Your task to perform on an android device: read, delete, or share a saved page in the chrome app Image 0: 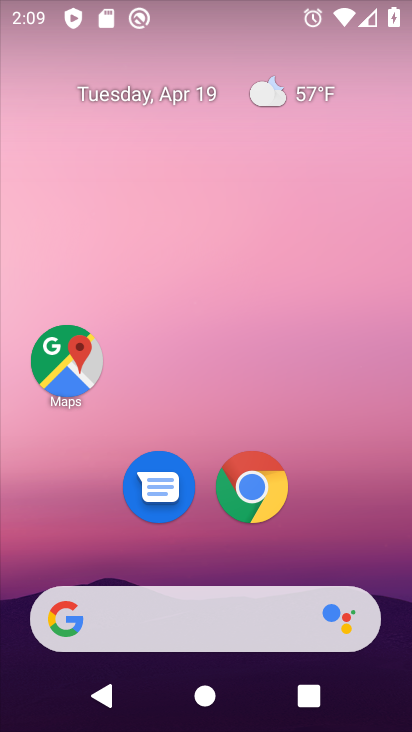
Step 0: drag from (347, 454) to (328, 97)
Your task to perform on an android device: read, delete, or share a saved page in the chrome app Image 1: 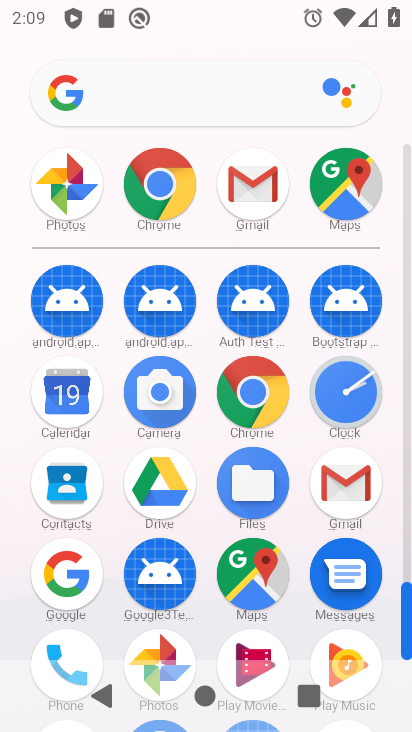
Step 1: click (241, 399)
Your task to perform on an android device: read, delete, or share a saved page in the chrome app Image 2: 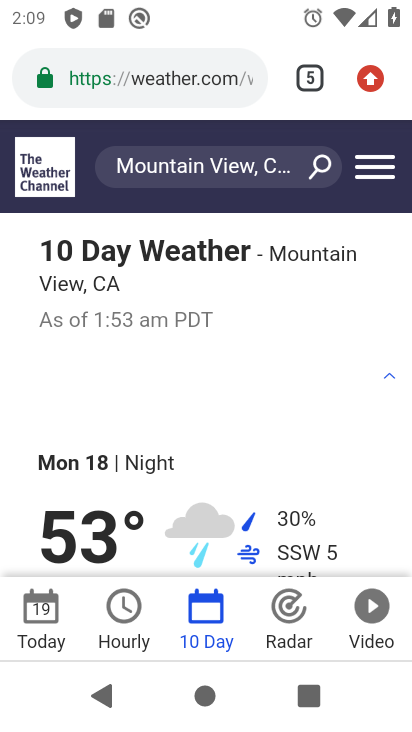
Step 2: click (373, 79)
Your task to perform on an android device: read, delete, or share a saved page in the chrome app Image 3: 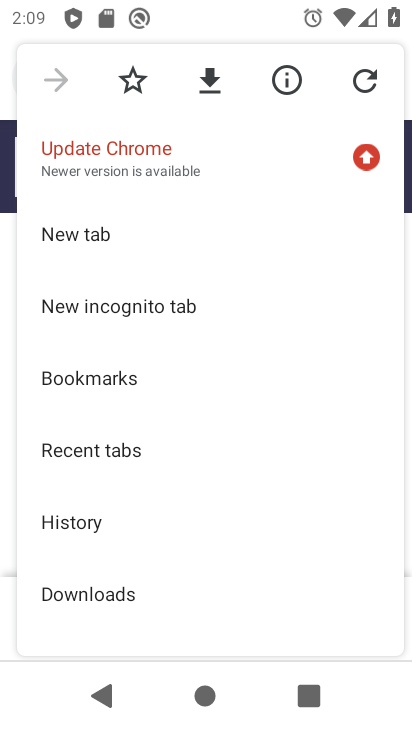
Step 3: drag from (262, 528) to (301, 267)
Your task to perform on an android device: read, delete, or share a saved page in the chrome app Image 4: 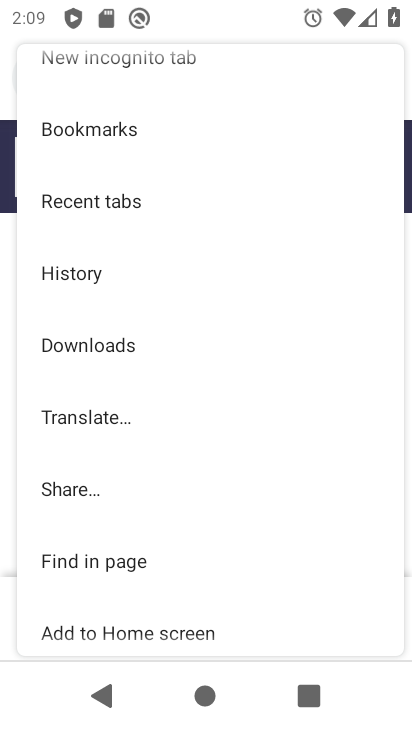
Step 4: click (104, 137)
Your task to perform on an android device: read, delete, or share a saved page in the chrome app Image 5: 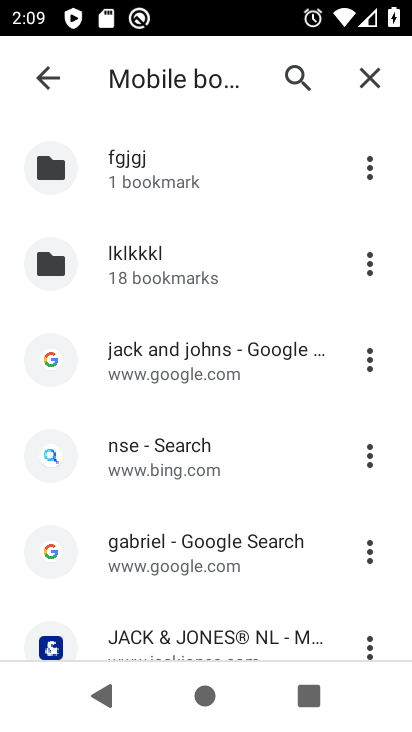
Step 5: click (368, 157)
Your task to perform on an android device: read, delete, or share a saved page in the chrome app Image 6: 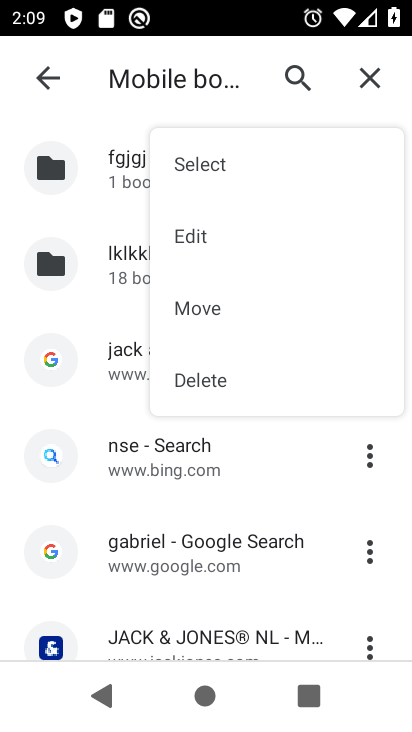
Step 6: click (223, 374)
Your task to perform on an android device: read, delete, or share a saved page in the chrome app Image 7: 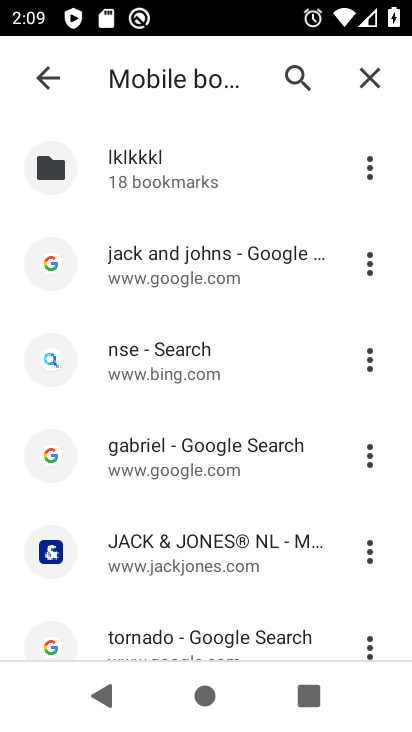
Step 7: task complete